Your task to perform on an android device: Search for macbook on newegg, select the first entry, add it to the cart, then select checkout. Image 0: 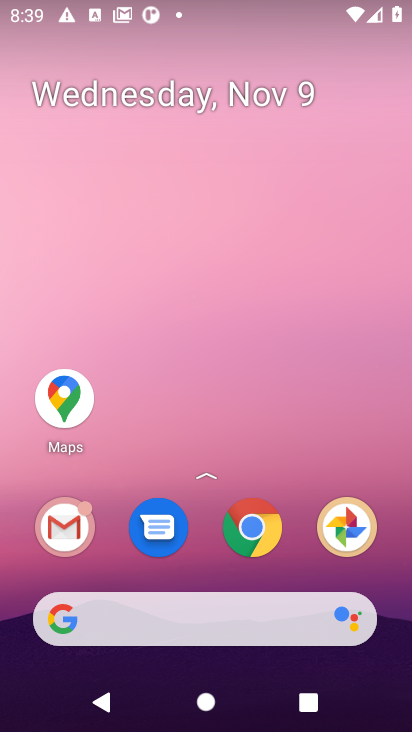
Step 0: click (255, 532)
Your task to perform on an android device: Search for macbook on newegg, select the first entry, add it to the cart, then select checkout. Image 1: 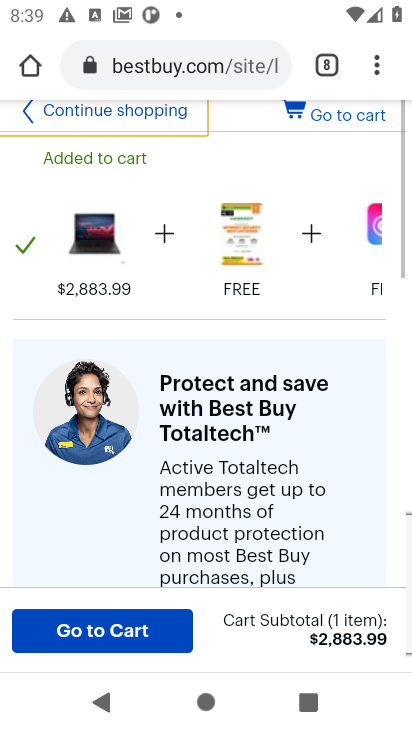
Step 1: click (208, 60)
Your task to perform on an android device: Search for macbook on newegg, select the first entry, add it to the cart, then select checkout. Image 2: 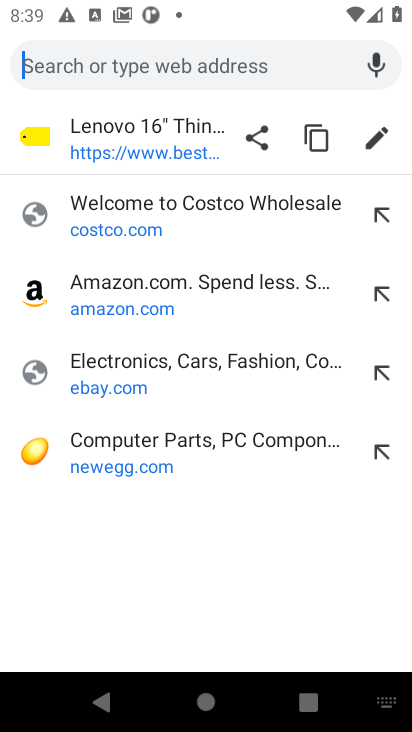
Step 2: click (124, 452)
Your task to perform on an android device: Search for macbook on newegg, select the first entry, add it to the cart, then select checkout. Image 3: 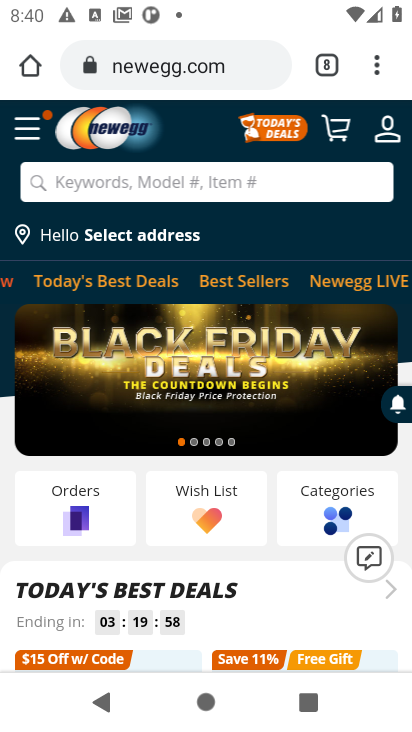
Step 3: click (177, 179)
Your task to perform on an android device: Search for macbook on newegg, select the first entry, add it to the cart, then select checkout. Image 4: 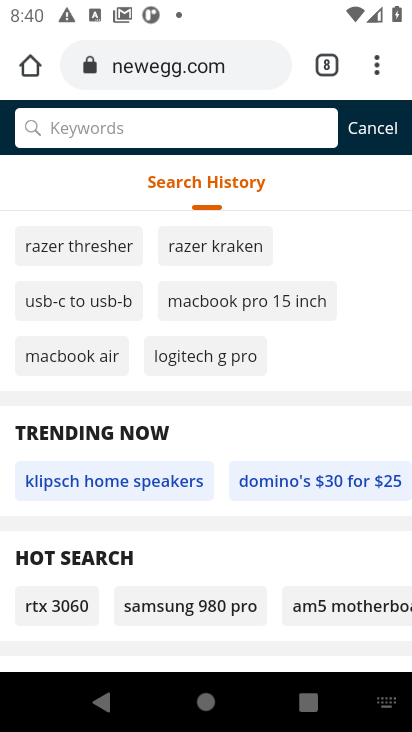
Step 4: type "macbook"
Your task to perform on an android device: Search for macbook on newegg, select the first entry, add it to the cart, then select checkout. Image 5: 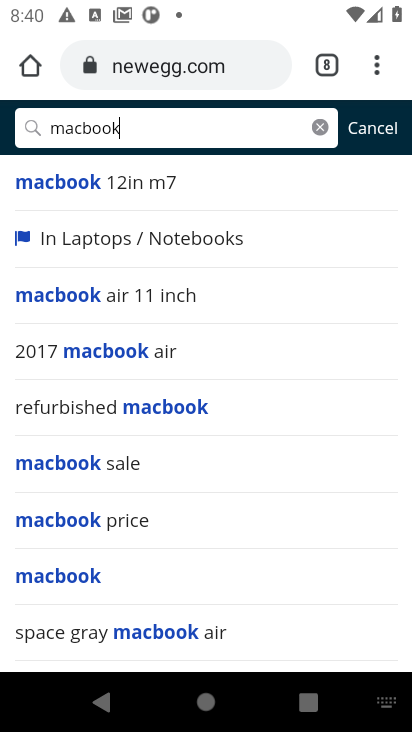
Step 5: click (61, 575)
Your task to perform on an android device: Search for macbook on newegg, select the first entry, add it to the cart, then select checkout. Image 6: 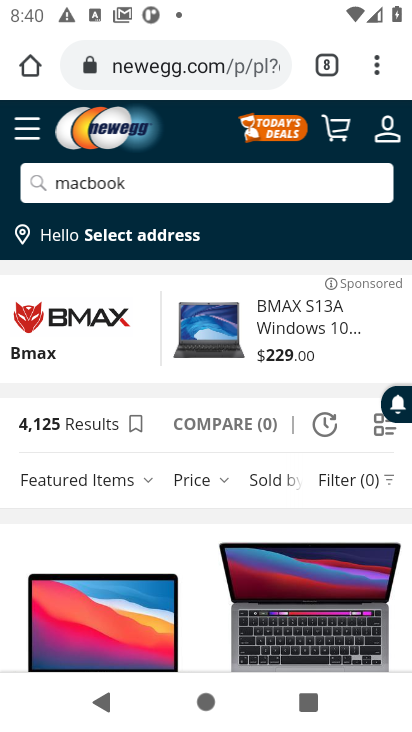
Step 6: drag from (94, 577) to (103, 260)
Your task to perform on an android device: Search for macbook on newegg, select the first entry, add it to the cart, then select checkout. Image 7: 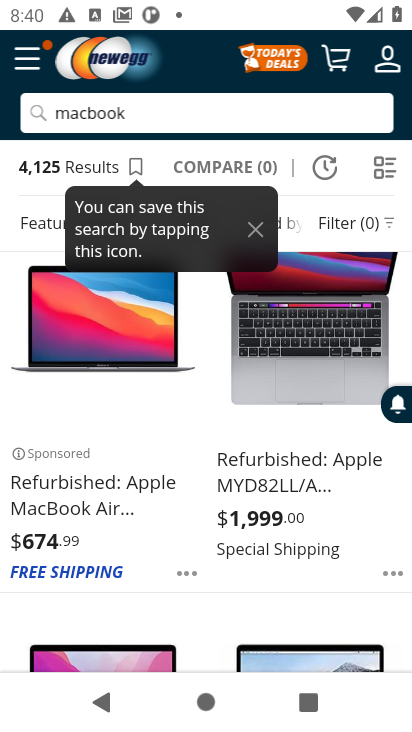
Step 7: click (47, 383)
Your task to perform on an android device: Search for macbook on newegg, select the first entry, add it to the cart, then select checkout. Image 8: 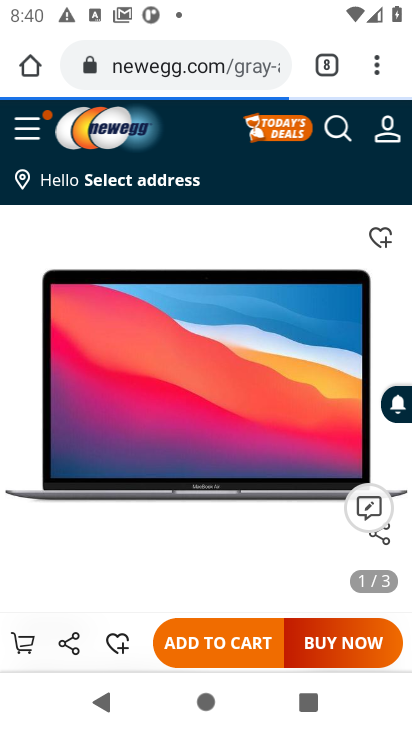
Step 8: click (219, 646)
Your task to perform on an android device: Search for macbook on newegg, select the first entry, add it to the cart, then select checkout. Image 9: 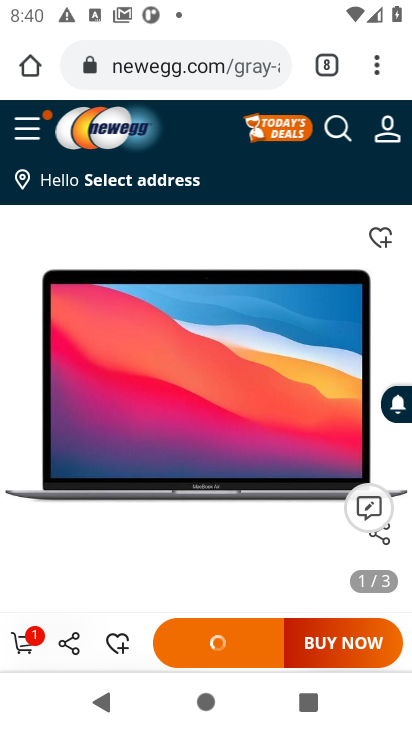
Step 9: click (23, 644)
Your task to perform on an android device: Search for macbook on newegg, select the first entry, add it to the cart, then select checkout. Image 10: 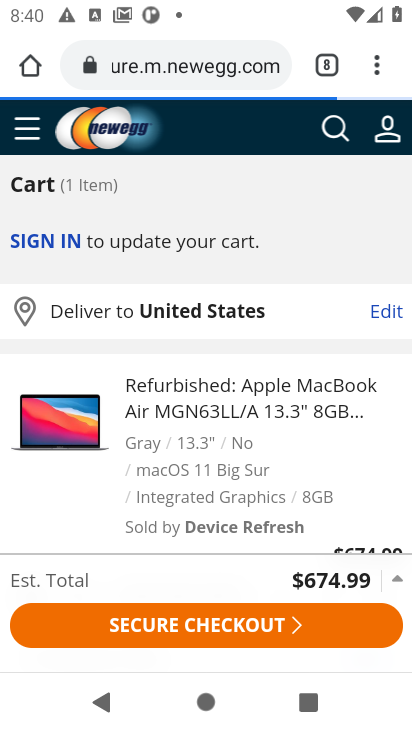
Step 10: click (129, 625)
Your task to perform on an android device: Search for macbook on newegg, select the first entry, add it to the cart, then select checkout. Image 11: 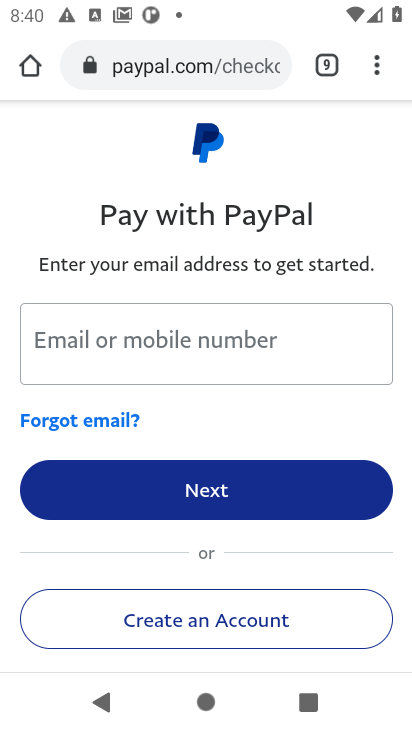
Step 11: task complete